Your task to perform on an android device: Open the calendar and show me this week's events? Image 0: 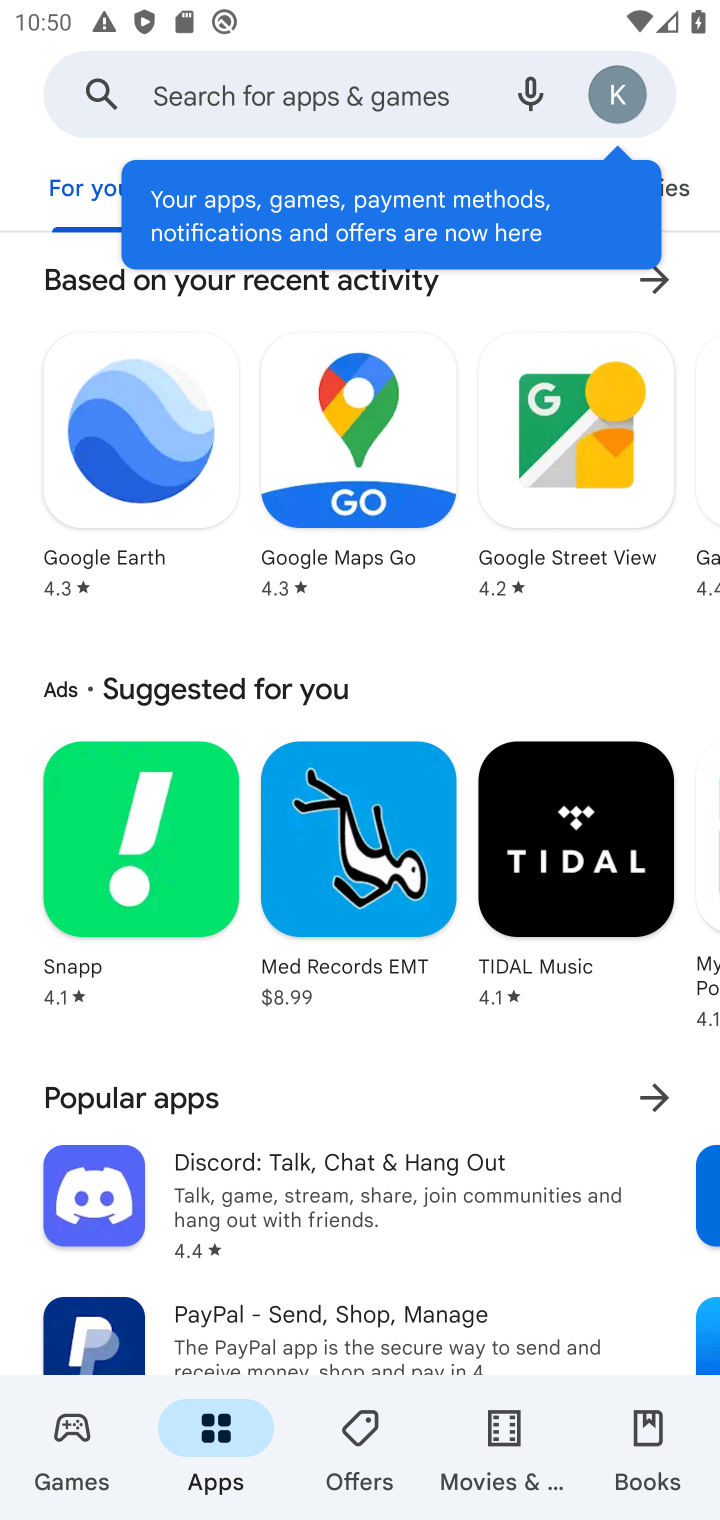
Step 0: press home button
Your task to perform on an android device: Open the calendar and show me this week's events? Image 1: 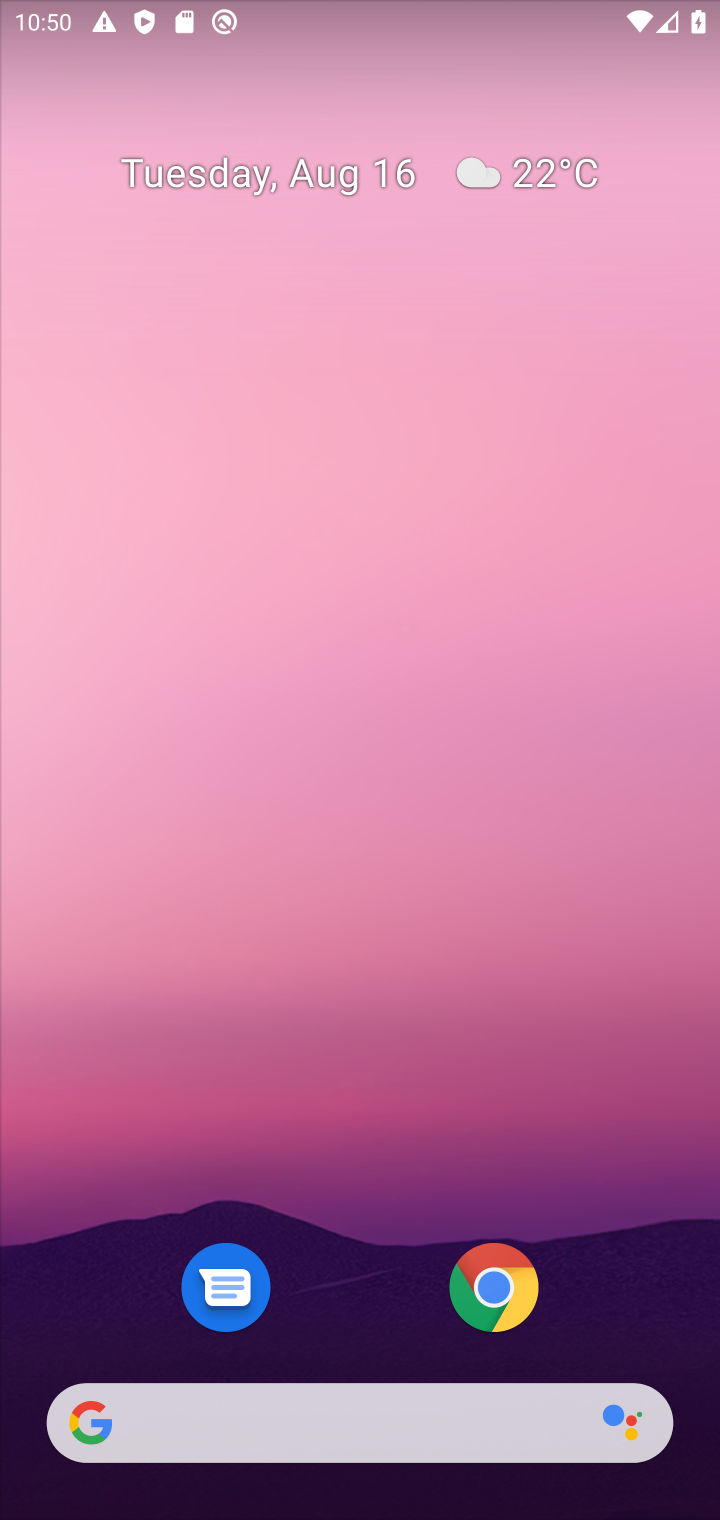
Step 1: drag from (646, 1326) to (586, 409)
Your task to perform on an android device: Open the calendar and show me this week's events? Image 2: 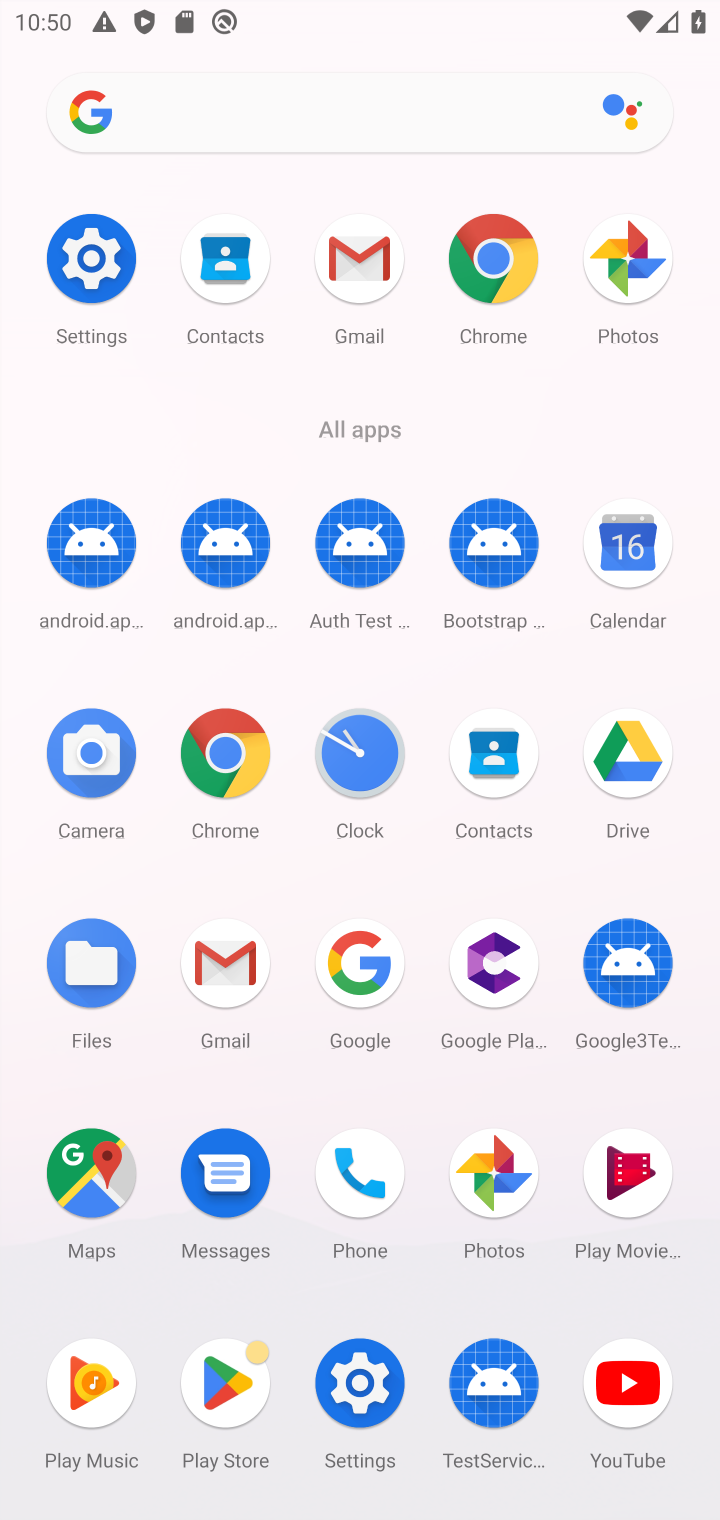
Step 2: click (629, 544)
Your task to perform on an android device: Open the calendar and show me this week's events? Image 3: 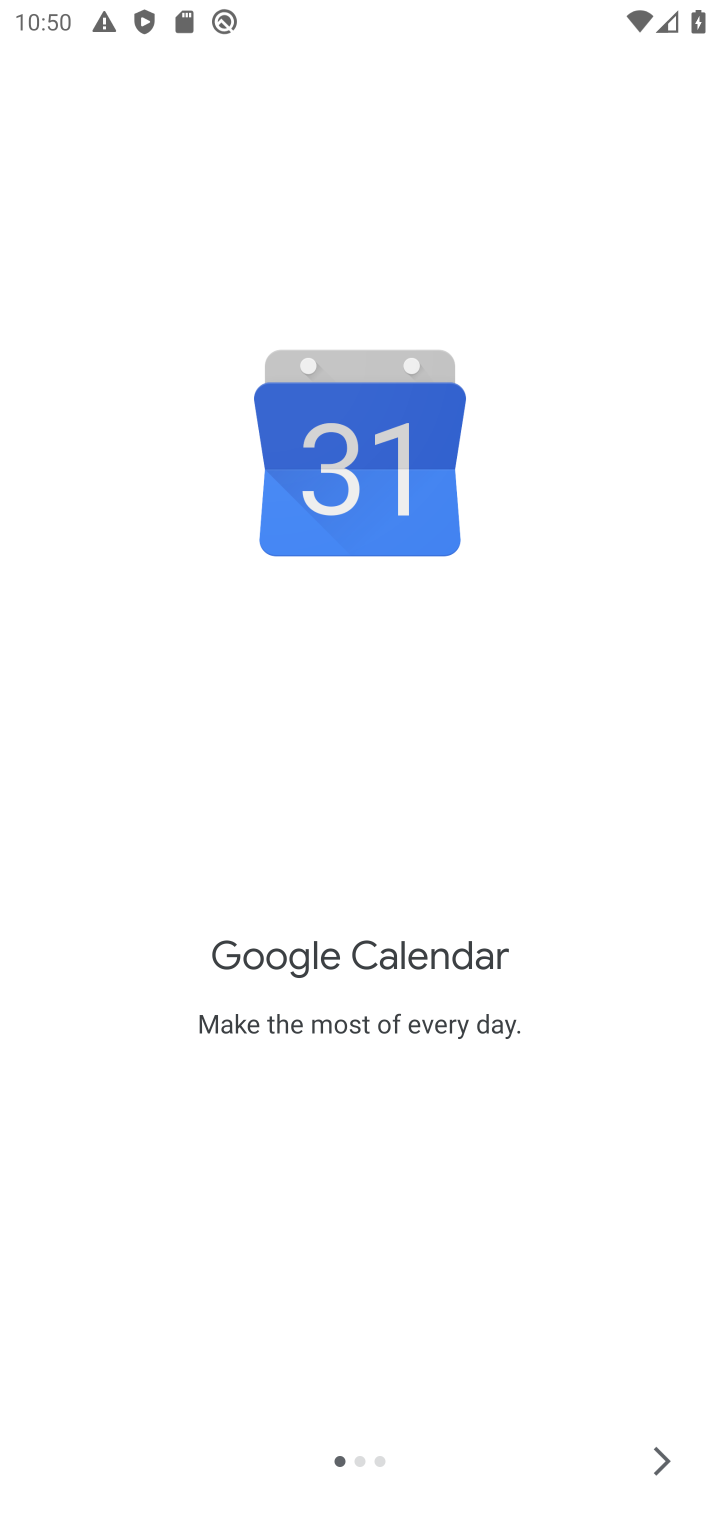
Step 3: click (662, 1463)
Your task to perform on an android device: Open the calendar and show me this week's events? Image 4: 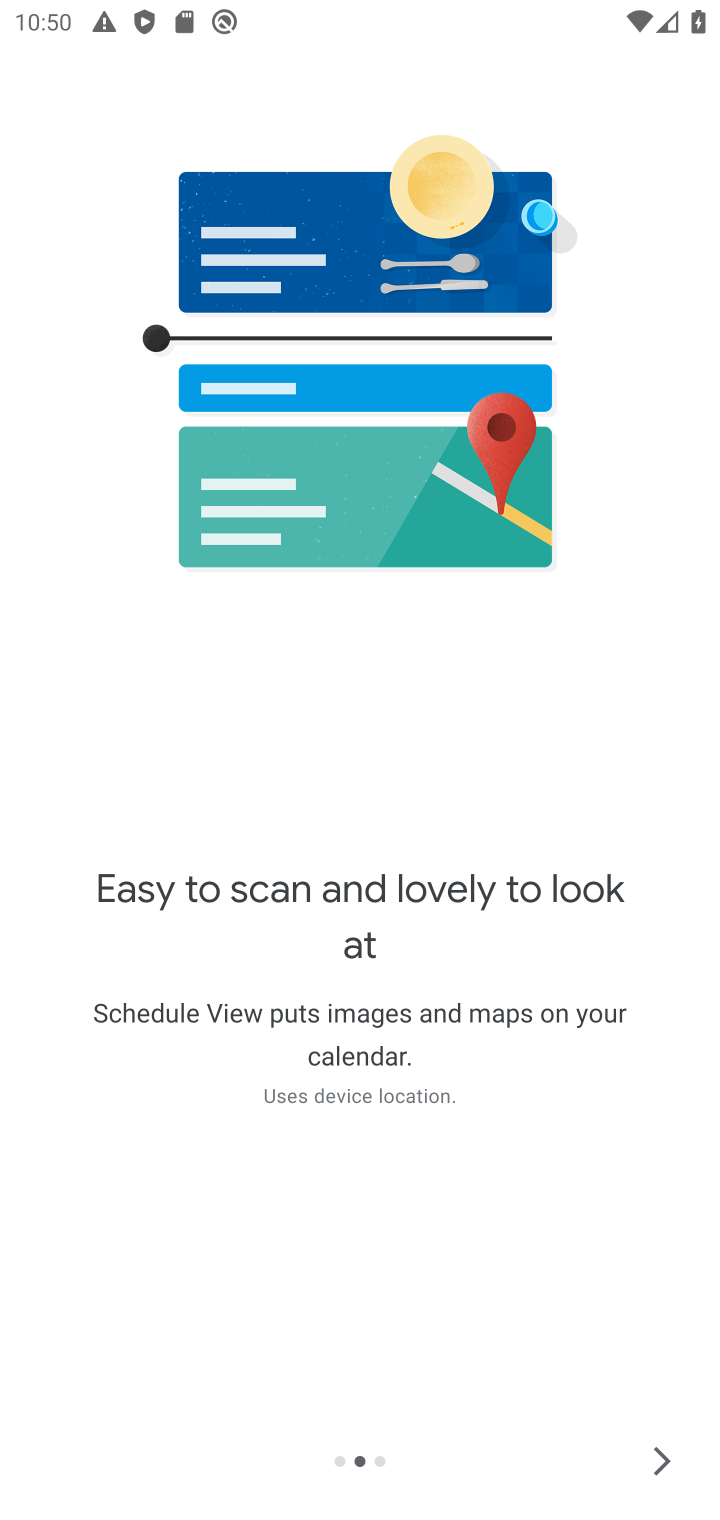
Step 4: click (662, 1463)
Your task to perform on an android device: Open the calendar and show me this week's events? Image 5: 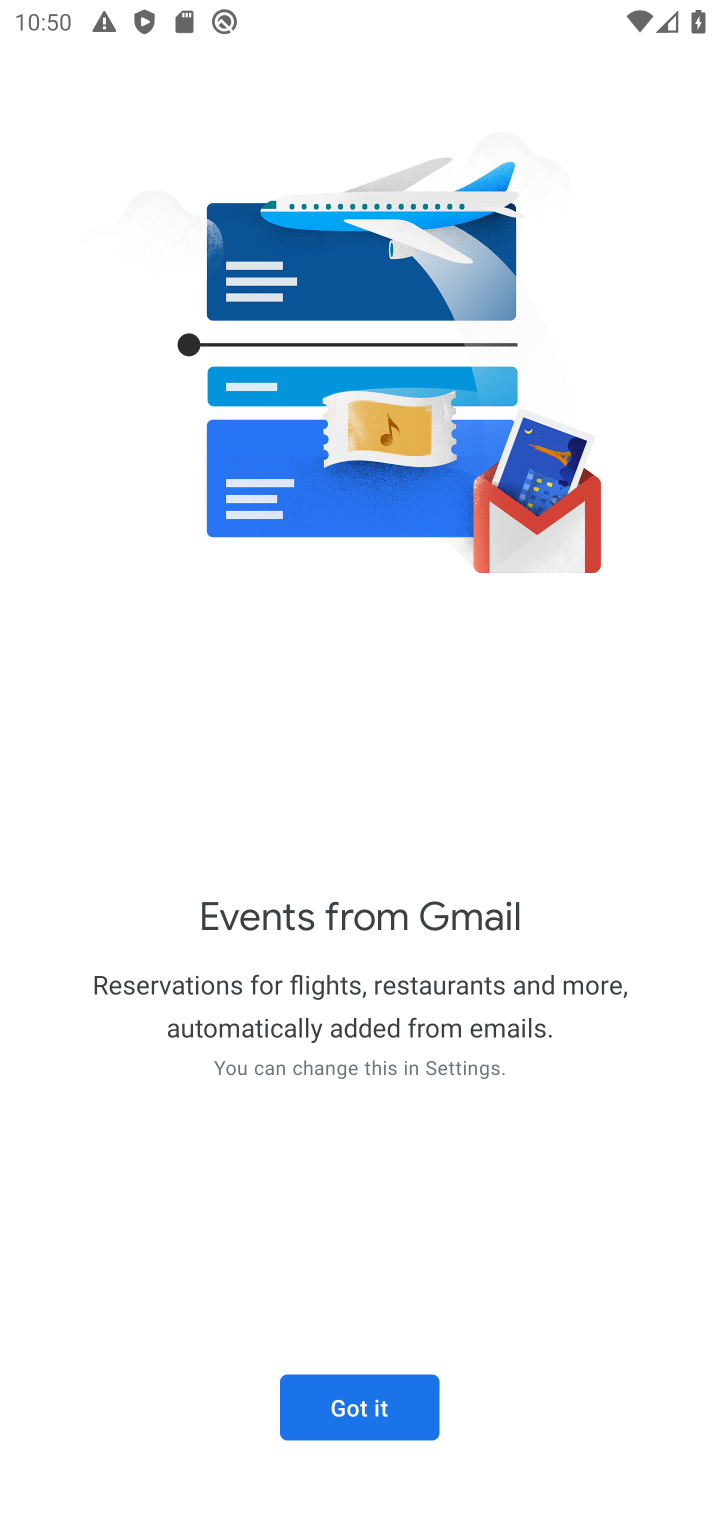
Step 5: click (352, 1409)
Your task to perform on an android device: Open the calendar and show me this week's events? Image 6: 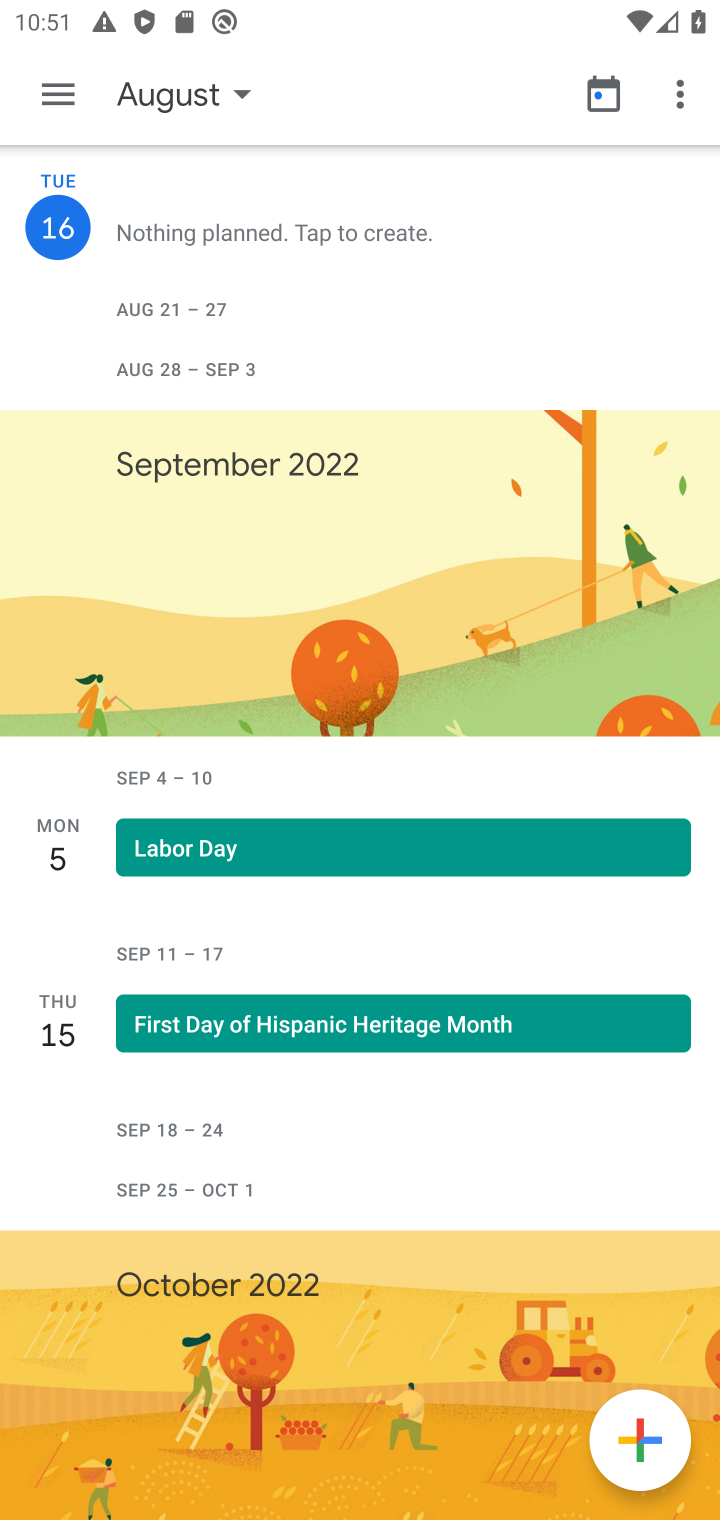
Step 6: click (55, 87)
Your task to perform on an android device: Open the calendar and show me this week's events? Image 7: 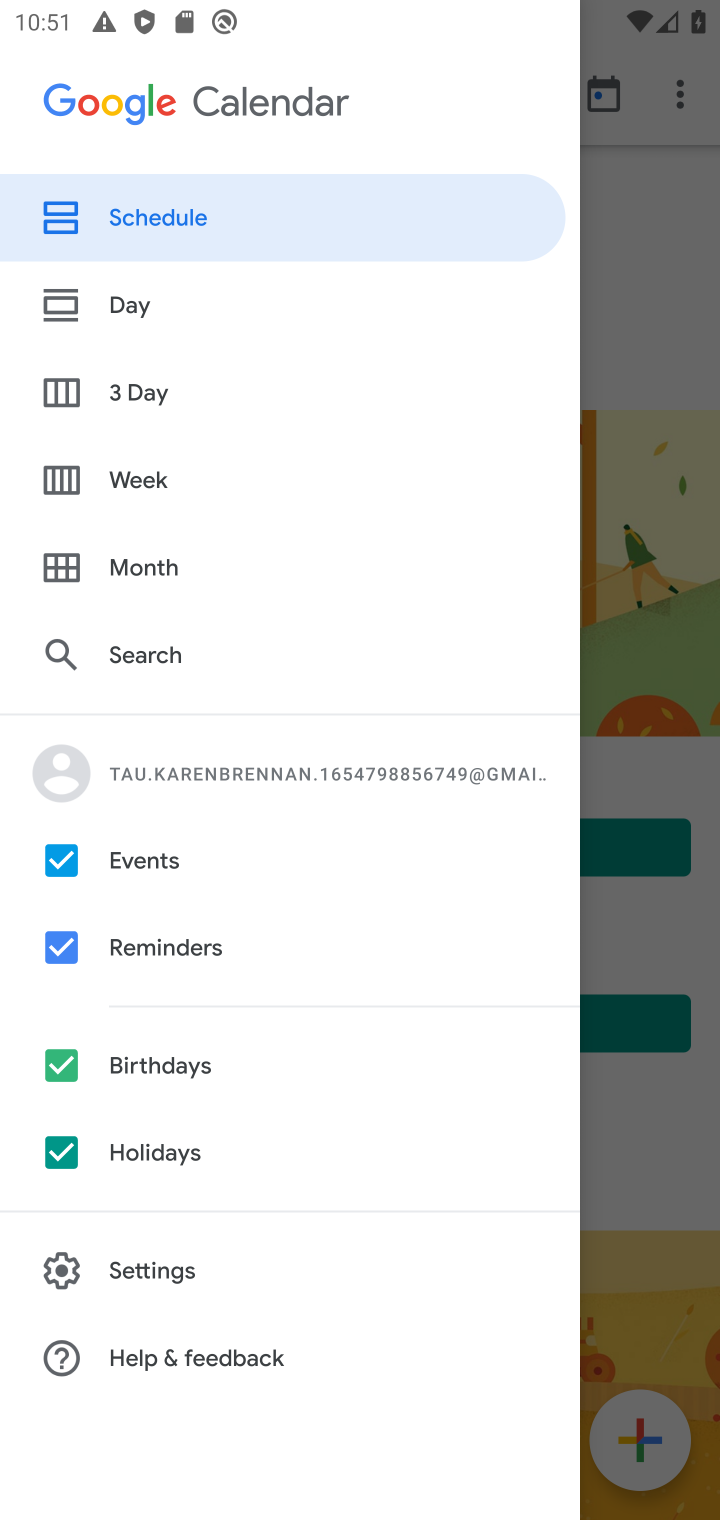
Step 7: click (134, 473)
Your task to perform on an android device: Open the calendar and show me this week's events? Image 8: 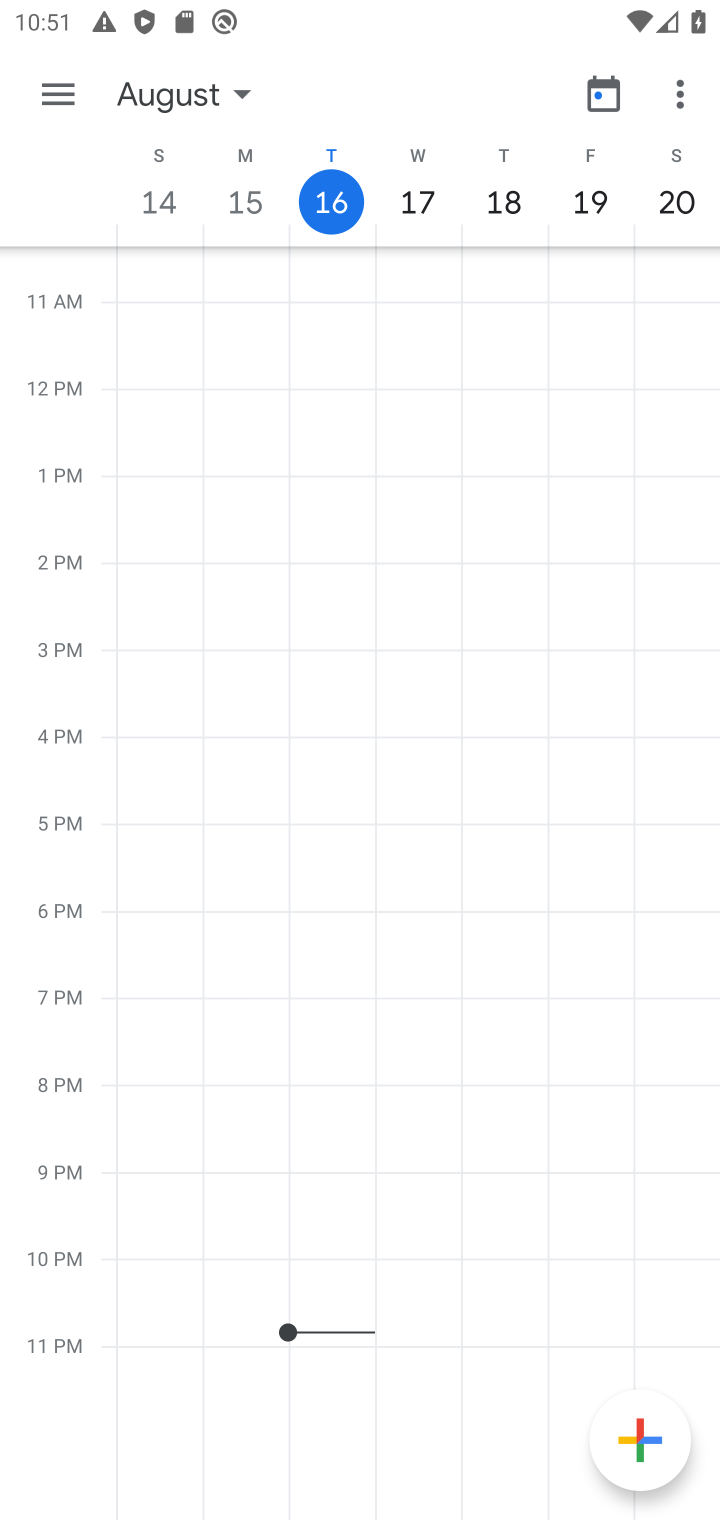
Step 8: task complete